Your task to perform on an android device: turn vacation reply on in the gmail app Image 0: 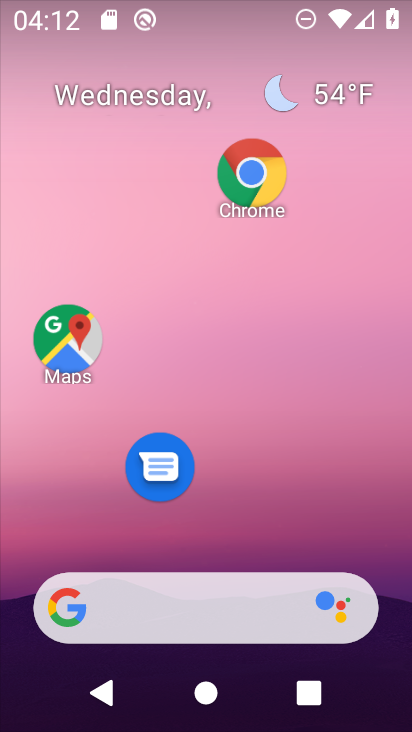
Step 0: click (316, 127)
Your task to perform on an android device: turn vacation reply on in the gmail app Image 1: 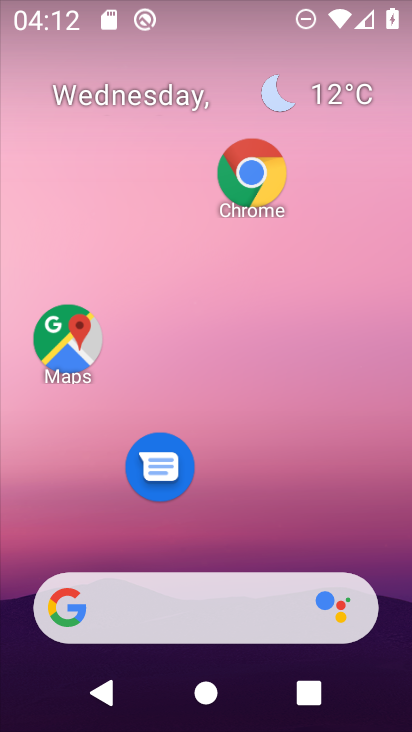
Step 1: drag from (223, 569) to (305, 95)
Your task to perform on an android device: turn vacation reply on in the gmail app Image 2: 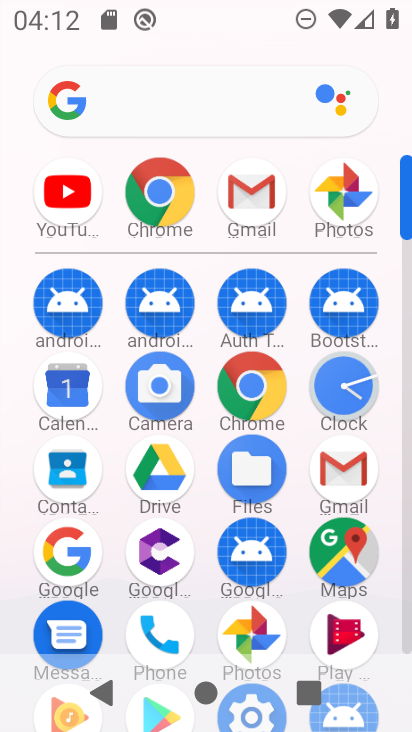
Step 2: click (255, 186)
Your task to perform on an android device: turn vacation reply on in the gmail app Image 3: 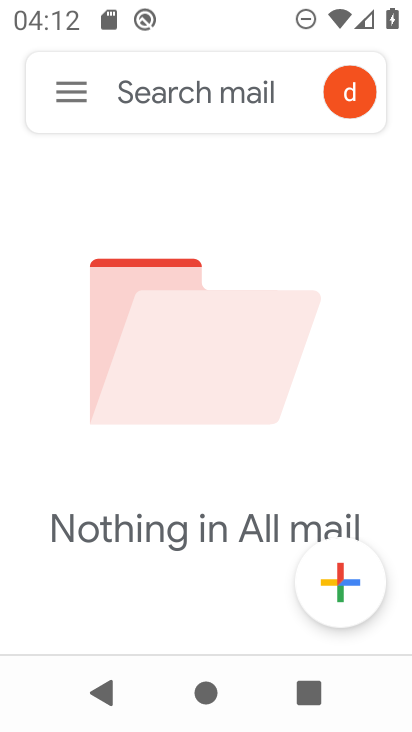
Step 3: click (62, 90)
Your task to perform on an android device: turn vacation reply on in the gmail app Image 4: 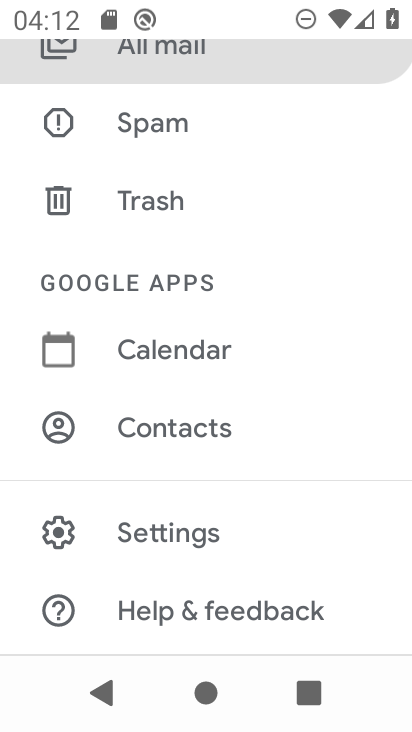
Step 4: click (177, 544)
Your task to perform on an android device: turn vacation reply on in the gmail app Image 5: 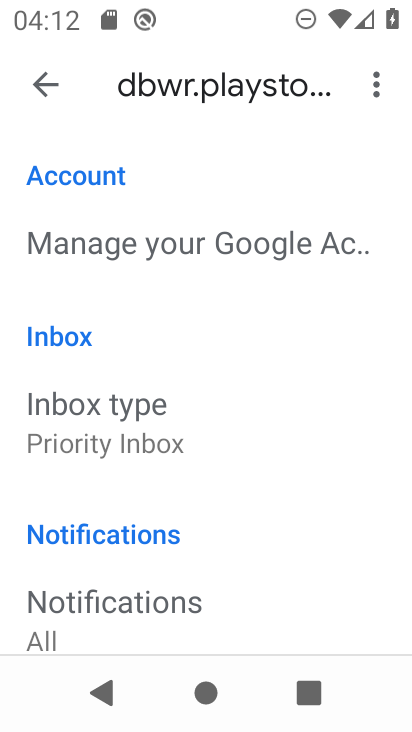
Step 5: drag from (144, 608) to (206, 165)
Your task to perform on an android device: turn vacation reply on in the gmail app Image 6: 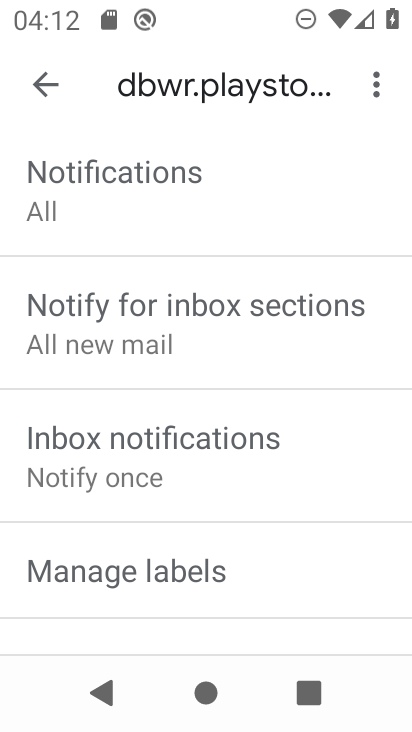
Step 6: drag from (152, 530) to (191, 170)
Your task to perform on an android device: turn vacation reply on in the gmail app Image 7: 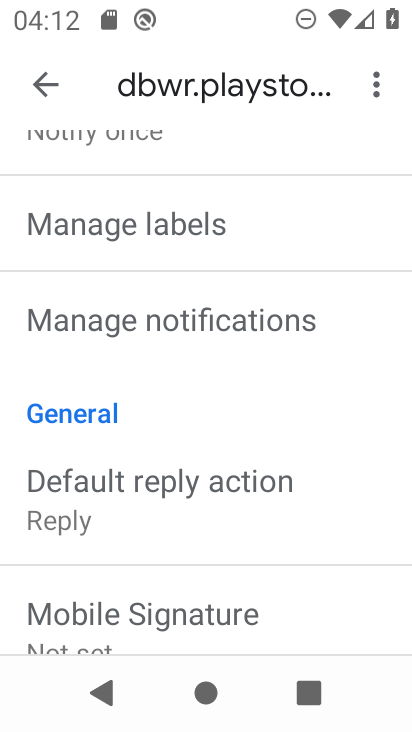
Step 7: drag from (137, 562) to (189, 148)
Your task to perform on an android device: turn vacation reply on in the gmail app Image 8: 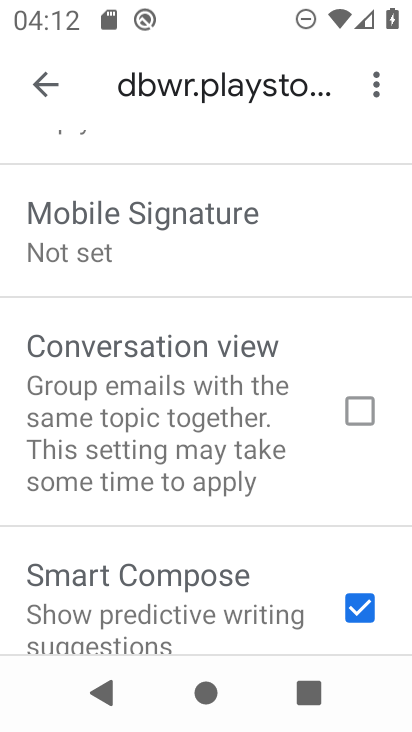
Step 8: drag from (178, 467) to (231, 101)
Your task to perform on an android device: turn vacation reply on in the gmail app Image 9: 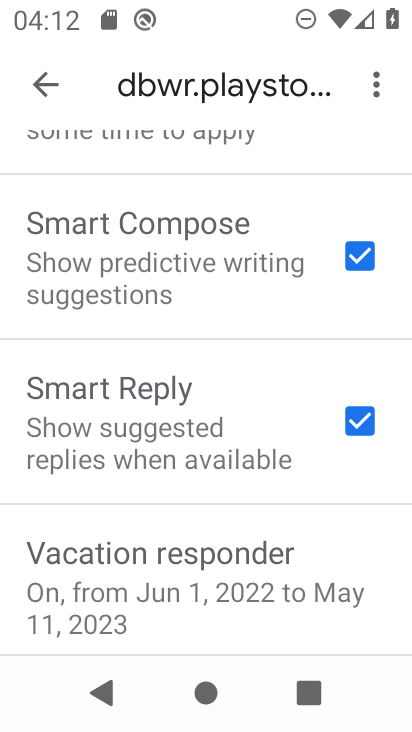
Step 9: click (159, 568)
Your task to perform on an android device: turn vacation reply on in the gmail app Image 10: 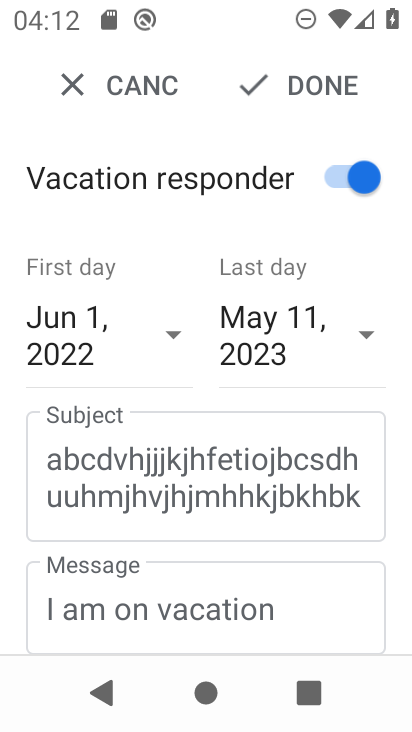
Step 10: task complete